Your task to perform on an android device: Open wifi settings Image 0: 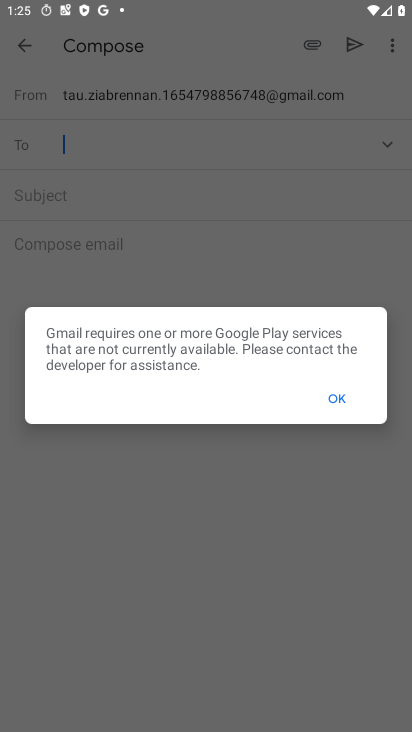
Step 0: press home button
Your task to perform on an android device: Open wifi settings Image 1: 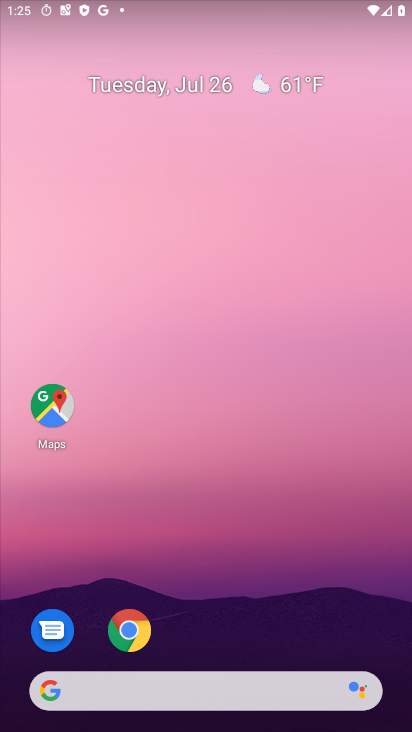
Step 1: drag from (267, 650) to (399, 25)
Your task to perform on an android device: Open wifi settings Image 2: 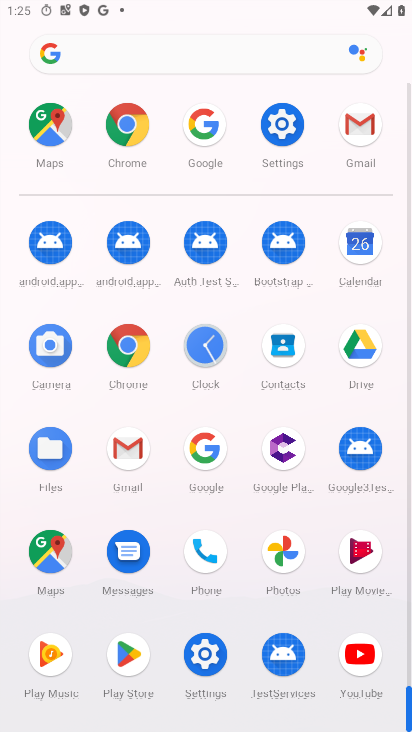
Step 2: click (280, 127)
Your task to perform on an android device: Open wifi settings Image 3: 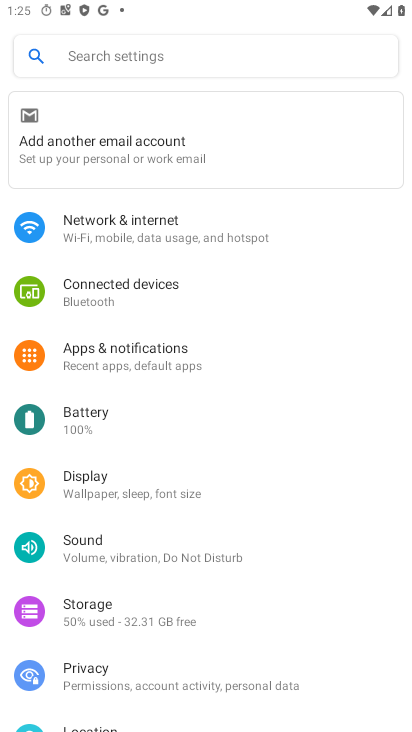
Step 3: click (169, 225)
Your task to perform on an android device: Open wifi settings Image 4: 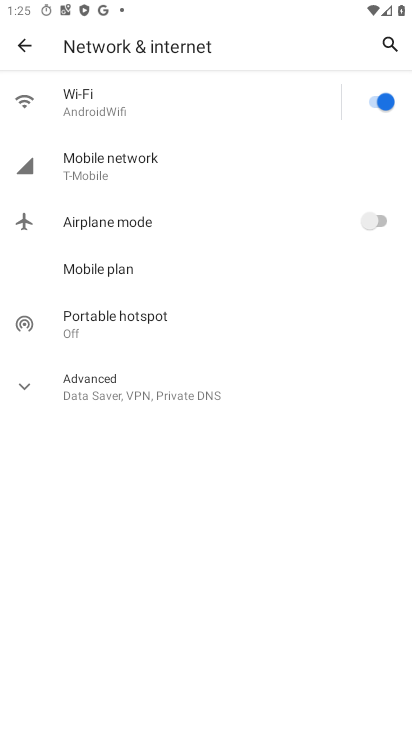
Step 4: click (204, 110)
Your task to perform on an android device: Open wifi settings Image 5: 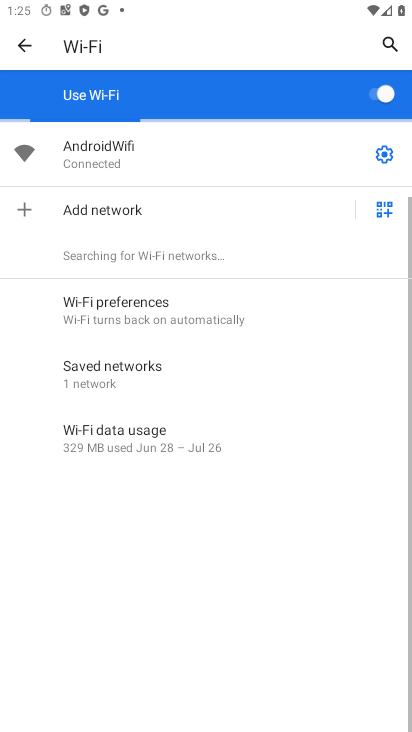
Step 5: task complete